Your task to perform on an android device: Add "macbook air" to the cart on ebay Image 0: 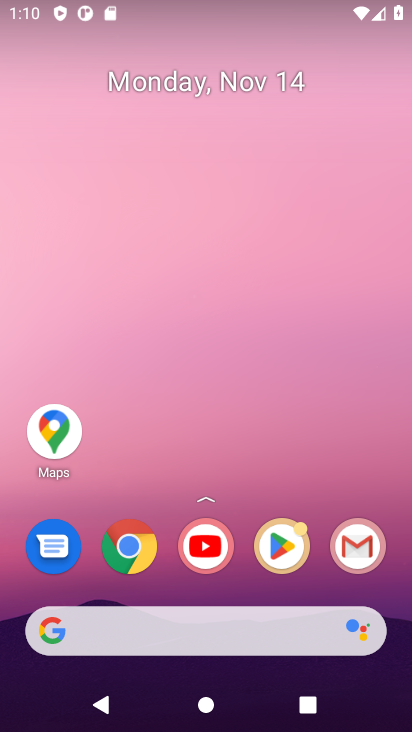
Step 0: drag from (267, 586) to (229, 82)
Your task to perform on an android device: Add "macbook air" to the cart on ebay Image 1: 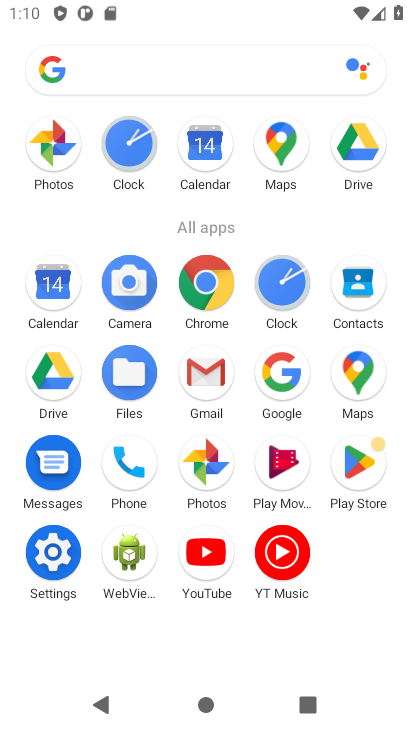
Step 1: click (209, 290)
Your task to perform on an android device: Add "macbook air" to the cart on ebay Image 2: 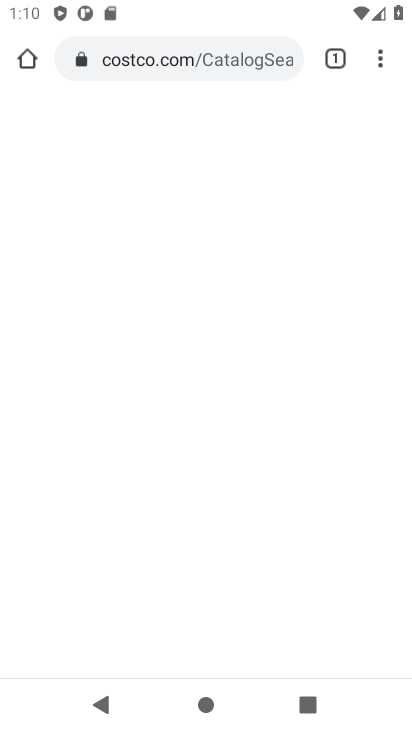
Step 2: drag from (191, 80) to (267, 467)
Your task to perform on an android device: Add "macbook air" to the cart on ebay Image 3: 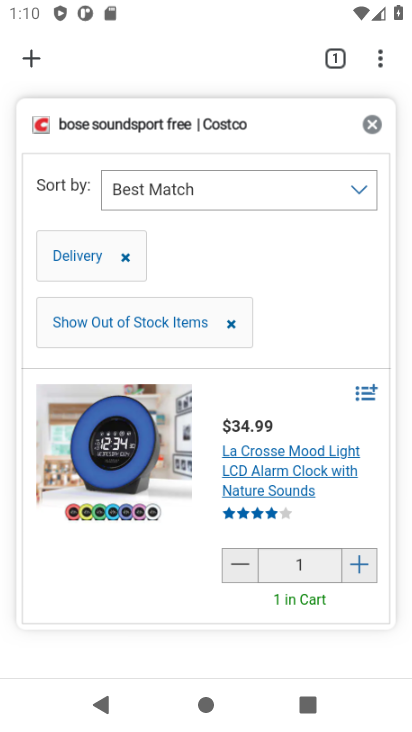
Step 3: drag from (260, 209) to (281, 0)
Your task to perform on an android device: Add "macbook air" to the cart on ebay Image 4: 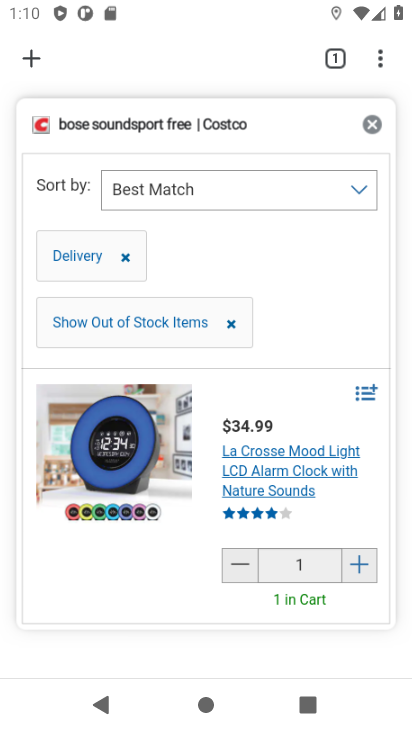
Step 4: drag from (280, 170) to (307, 0)
Your task to perform on an android device: Add "macbook air" to the cart on ebay Image 5: 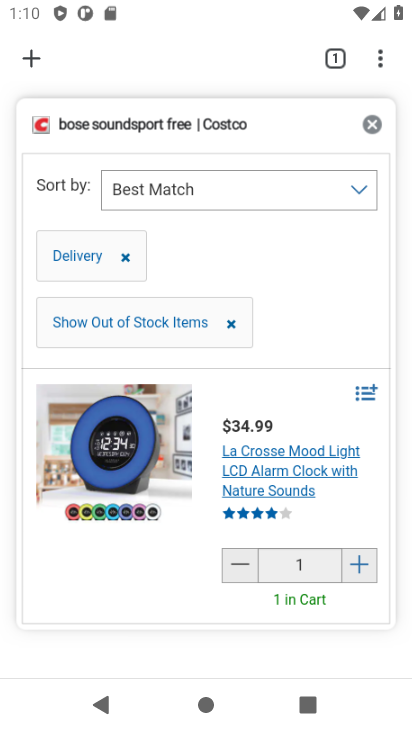
Step 5: click (237, 123)
Your task to perform on an android device: Add "macbook air" to the cart on ebay Image 6: 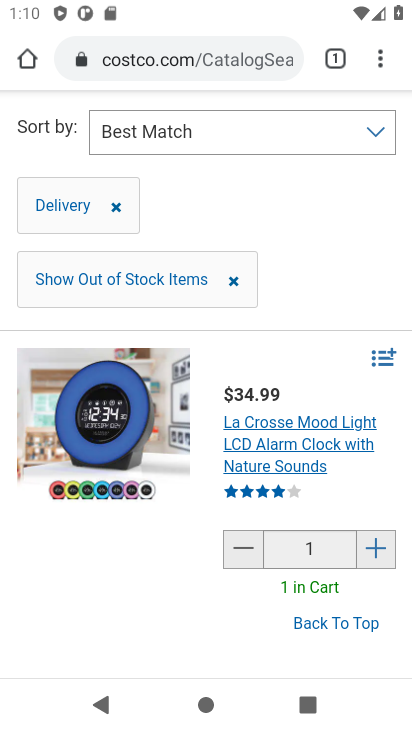
Step 6: click (257, 51)
Your task to perform on an android device: Add "macbook air" to the cart on ebay Image 7: 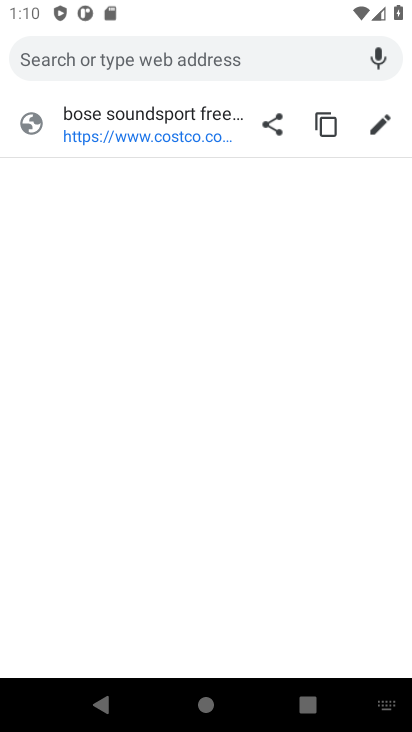
Step 7: press enter
Your task to perform on an android device: Add "macbook air" to the cart on ebay Image 8: 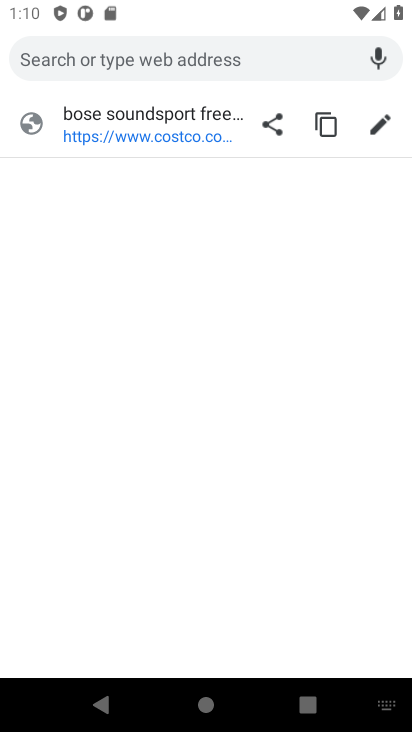
Step 8: type "ebay"
Your task to perform on an android device: Add "macbook air" to the cart on ebay Image 9: 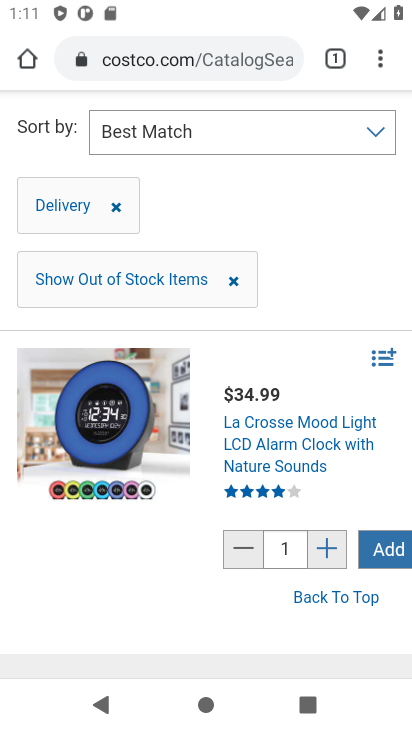
Step 9: drag from (276, 278) to (271, 459)
Your task to perform on an android device: Add "macbook air" to the cart on ebay Image 10: 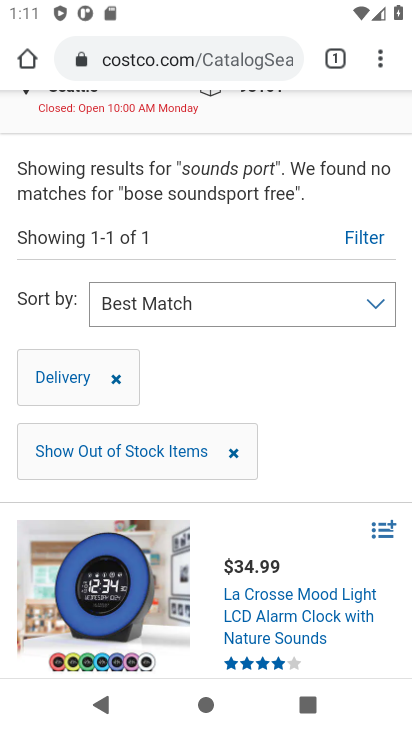
Step 10: drag from (262, 176) to (246, 533)
Your task to perform on an android device: Add "macbook air" to the cart on ebay Image 11: 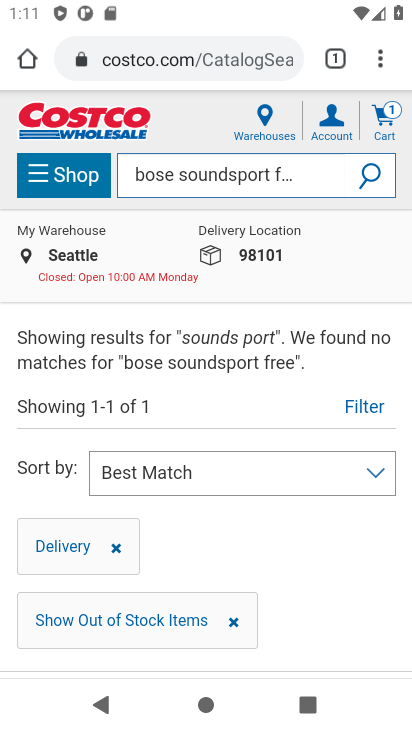
Step 11: click (172, 56)
Your task to perform on an android device: Add "macbook air" to the cart on ebay Image 12: 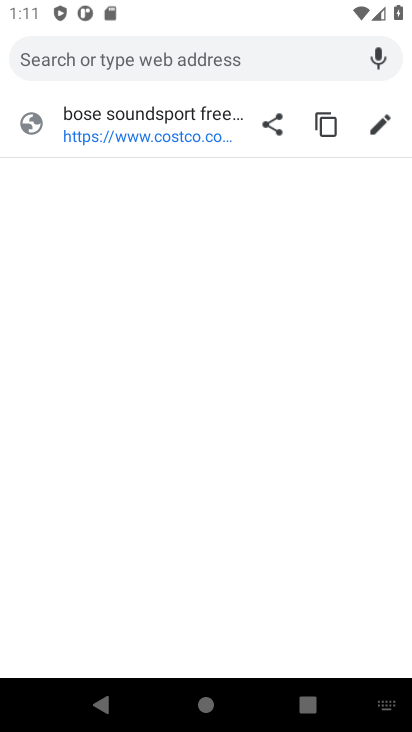
Step 12: type "ebay"
Your task to perform on an android device: Add "macbook air" to the cart on ebay Image 13: 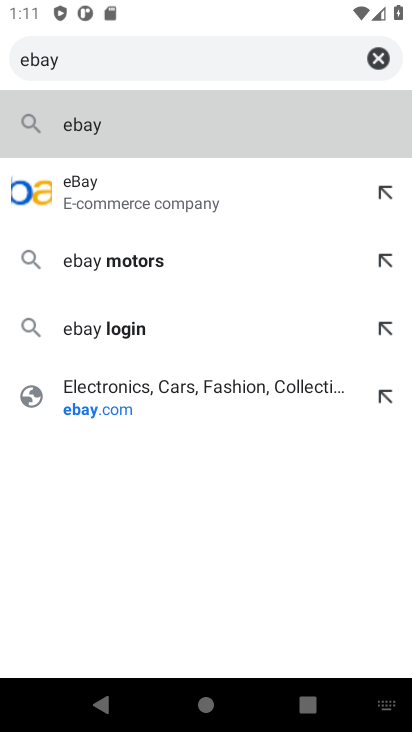
Step 13: press enter
Your task to perform on an android device: Add "macbook air" to the cart on ebay Image 14: 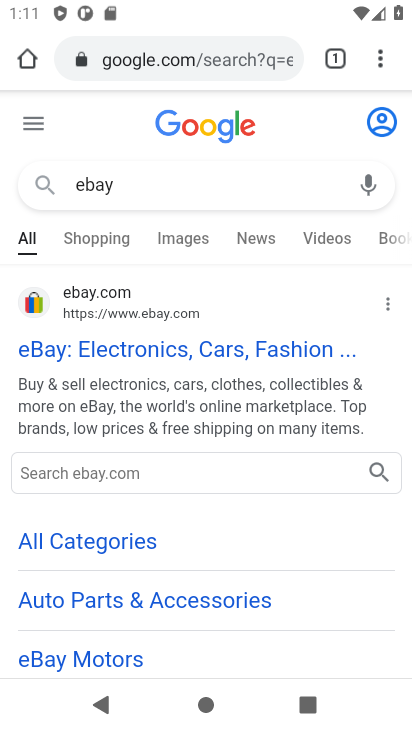
Step 14: click (103, 310)
Your task to perform on an android device: Add "macbook air" to the cart on ebay Image 15: 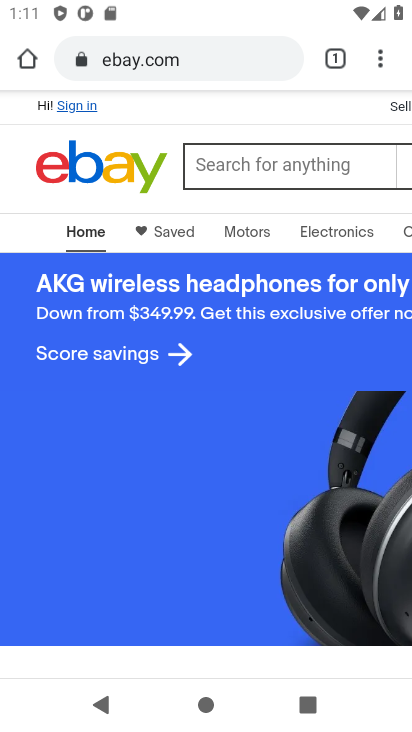
Step 15: click (273, 165)
Your task to perform on an android device: Add "macbook air" to the cart on ebay Image 16: 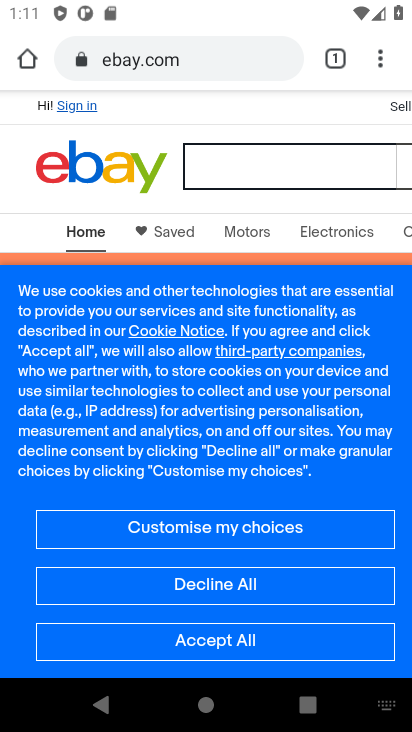
Step 16: type "macbook air"
Your task to perform on an android device: Add "macbook air" to the cart on ebay Image 17: 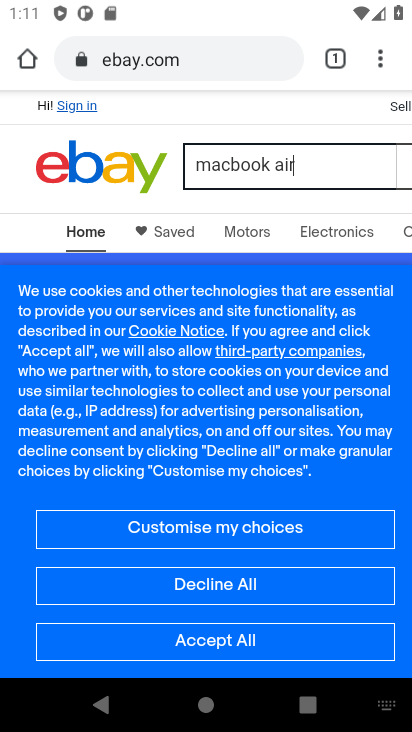
Step 17: press enter
Your task to perform on an android device: Add "macbook air" to the cart on ebay Image 18: 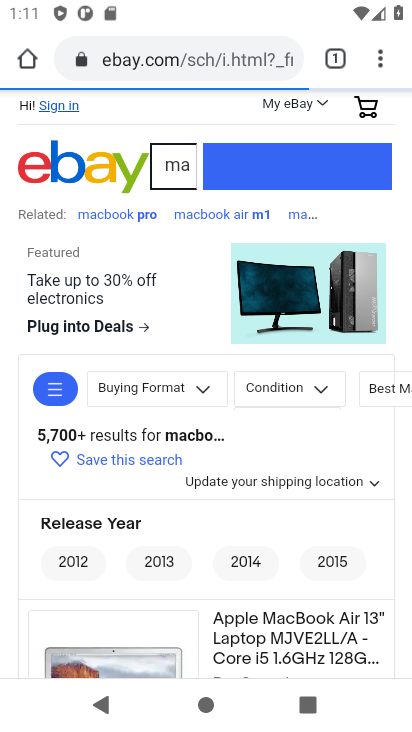
Step 18: click (192, 252)
Your task to perform on an android device: Add "macbook air" to the cart on ebay Image 19: 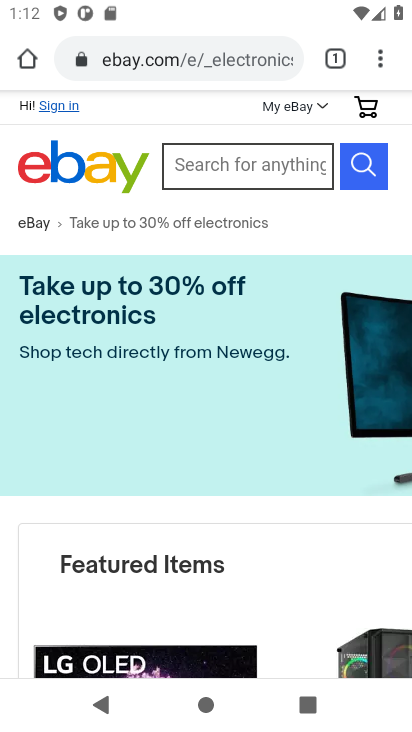
Step 19: press back button
Your task to perform on an android device: Add "macbook air" to the cart on ebay Image 20: 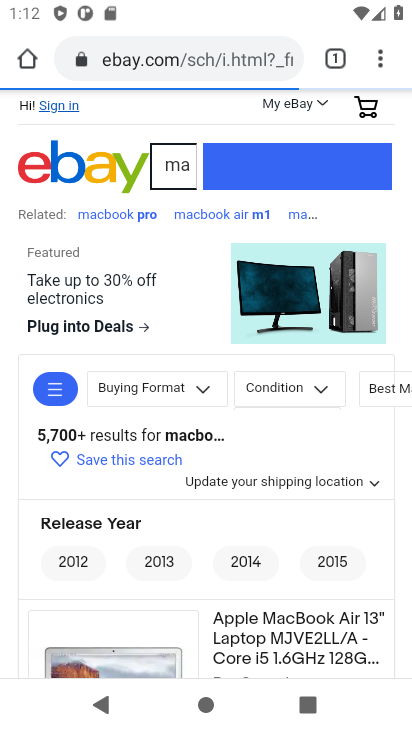
Step 20: drag from (229, 632) to (293, 246)
Your task to perform on an android device: Add "macbook air" to the cart on ebay Image 21: 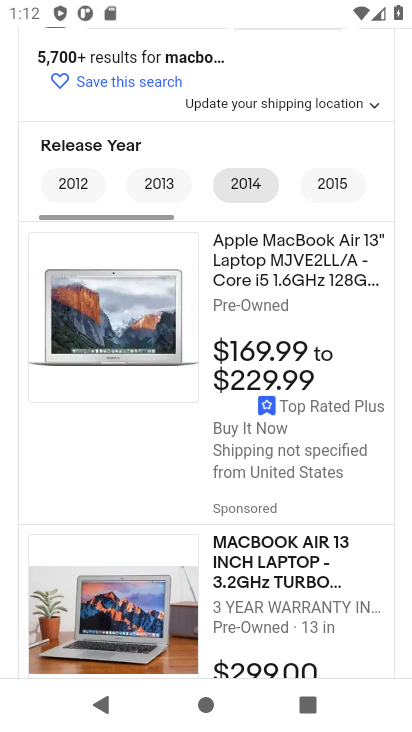
Step 21: click (283, 267)
Your task to perform on an android device: Add "macbook air" to the cart on ebay Image 22: 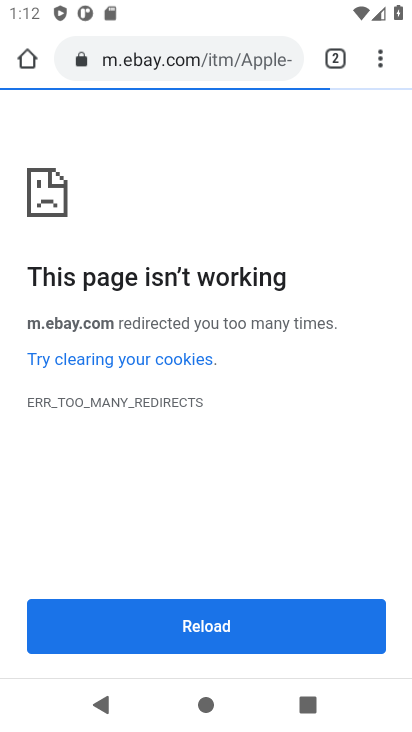
Step 22: click (191, 616)
Your task to perform on an android device: Add "macbook air" to the cart on ebay Image 23: 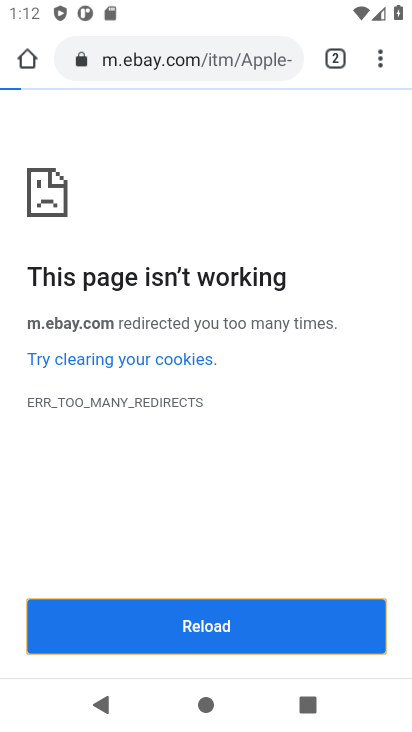
Step 23: task complete